Your task to perform on an android device: find photos in the google photos app Image 0: 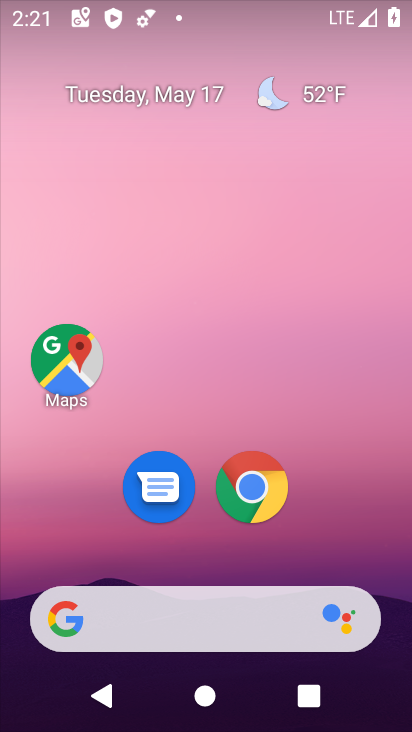
Step 0: drag from (388, 658) to (346, 278)
Your task to perform on an android device: find photos in the google photos app Image 1: 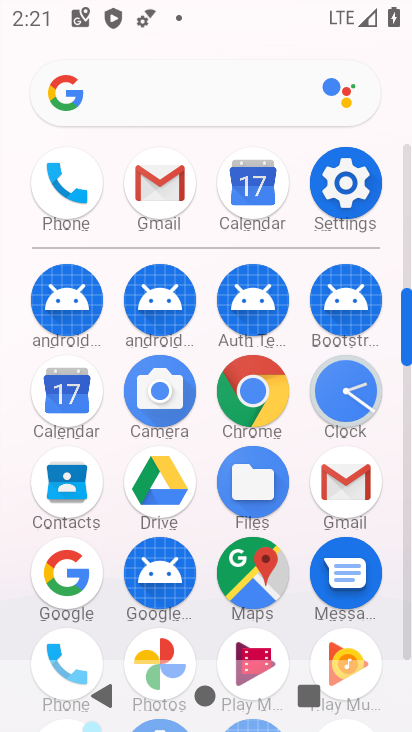
Step 1: click (170, 632)
Your task to perform on an android device: find photos in the google photos app Image 2: 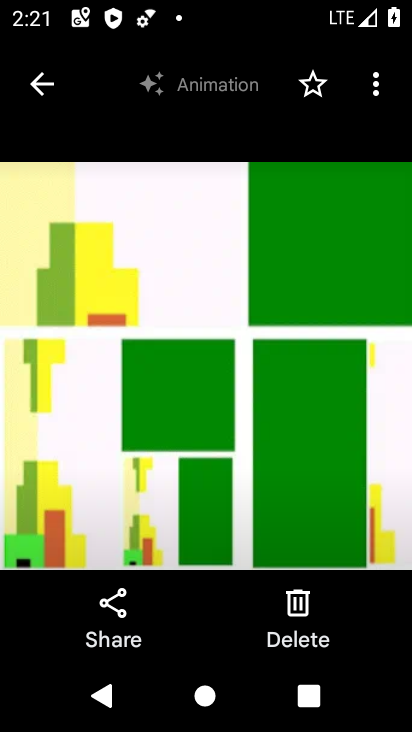
Step 2: task complete